Your task to perform on an android device: Open Amazon Image 0: 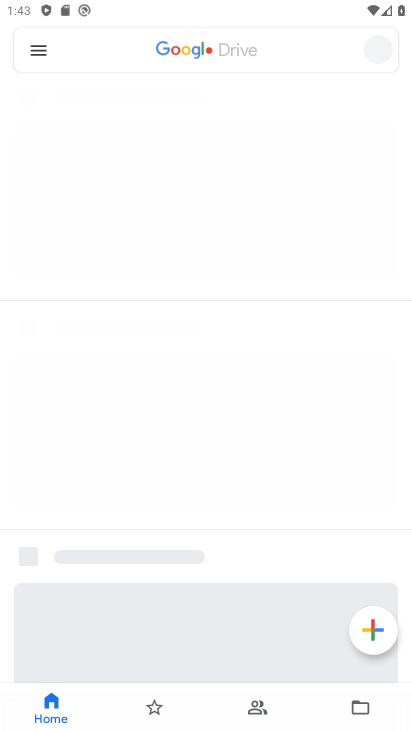
Step 0: drag from (173, 680) to (20, 11)
Your task to perform on an android device: Open Amazon Image 1: 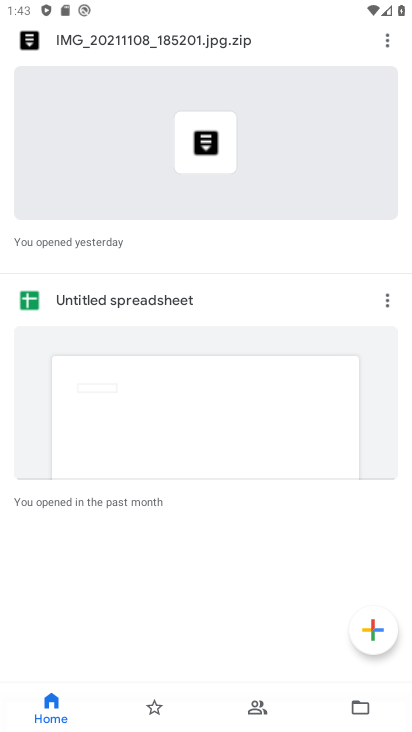
Step 1: press home button
Your task to perform on an android device: Open Amazon Image 2: 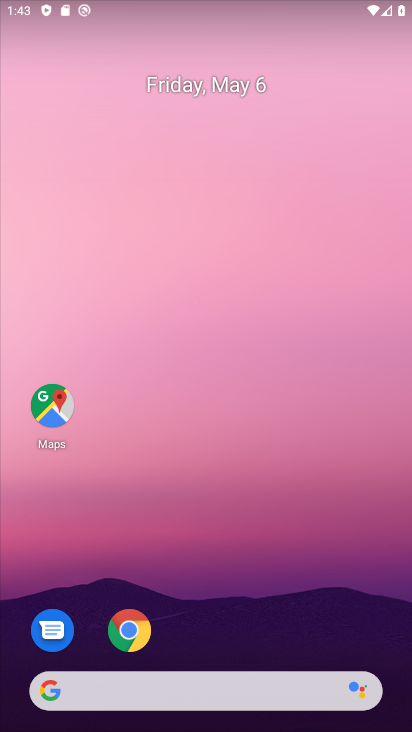
Step 2: click (137, 641)
Your task to perform on an android device: Open Amazon Image 3: 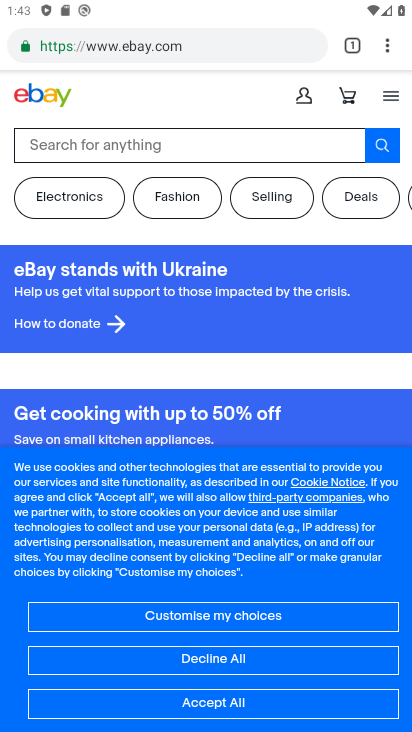
Step 3: click (174, 56)
Your task to perform on an android device: Open Amazon Image 4: 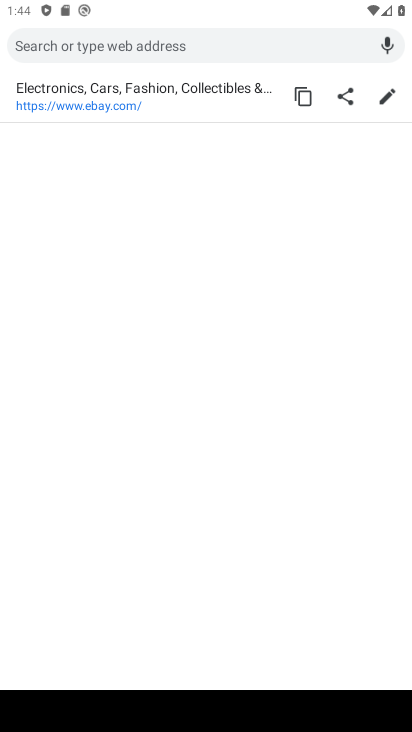
Step 4: type "amazon"
Your task to perform on an android device: Open Amazon Image 5: 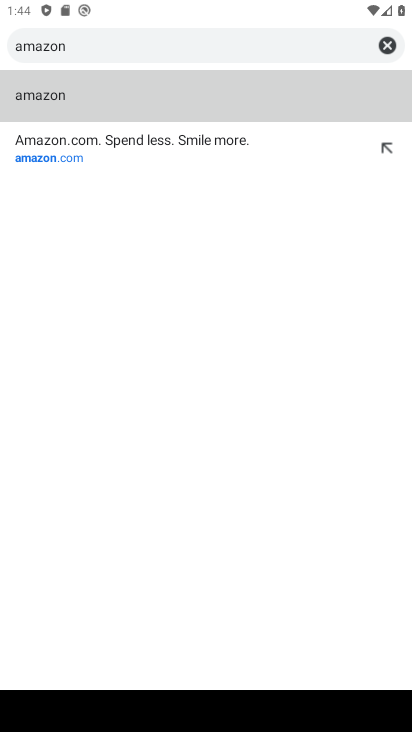
Step 5: click (201, 155)
Your task to perform on an android device: Open Amazon Image 6: 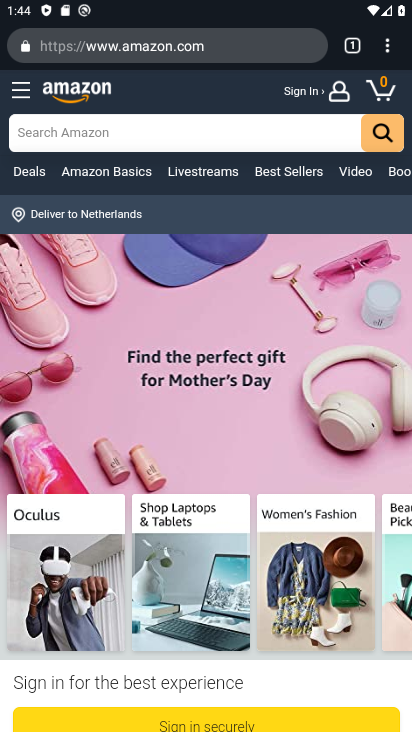
Step 6: task complete